Your task to perform on an android device: toggle location history Image 0: 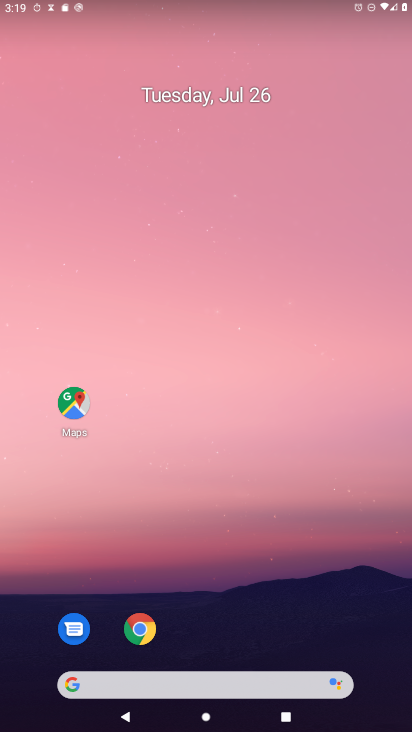
Step 0: drag from (307, 679) to (336, 22)
Your task to perform on an android device: toggle location history Image 1: 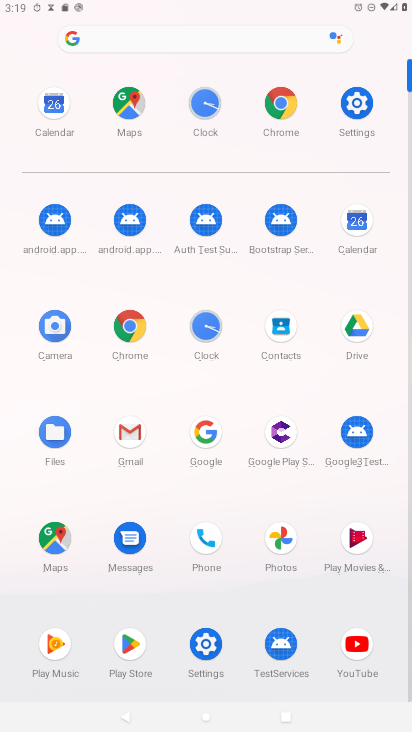
Step 1: click (366, 95)
Your task to perform on an android device: toggle location history Image 2: 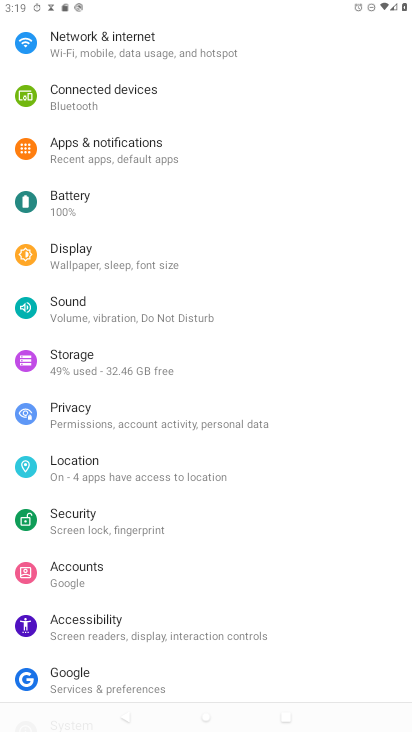
Step 2: click (108, 477)
Your task to perform on an android device: toggle location history Image 3: 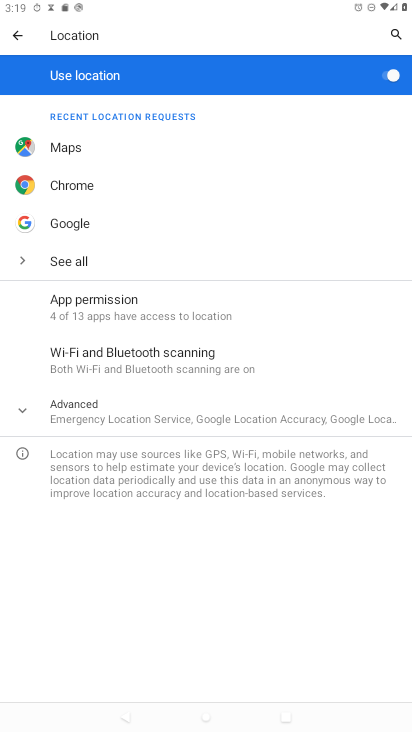
Step 3: click (153, 416)
Your task to perform on an android device: toggle location history Image 4: 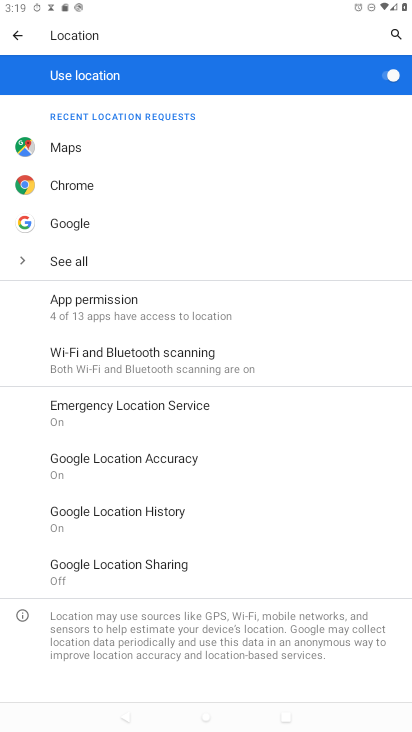
Step 4: click (184, 518)
Your task to perform on an android device: toggle location history Image 5: 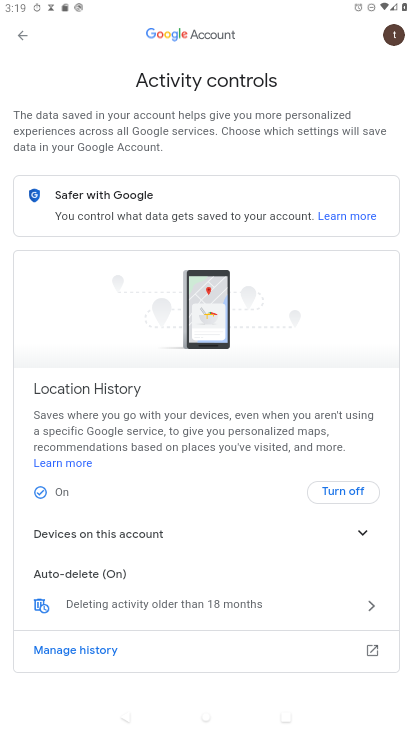
Step 5: click (336, 491)
Your task to perform on an android device: toggle location history Image 6: 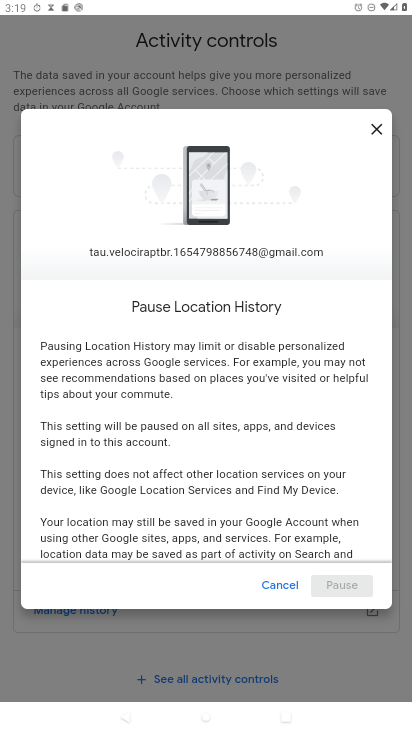
Step 6: drag from (325, 503) to (386, 2)
Your task to perform on an android device: toggle location history Image 7: 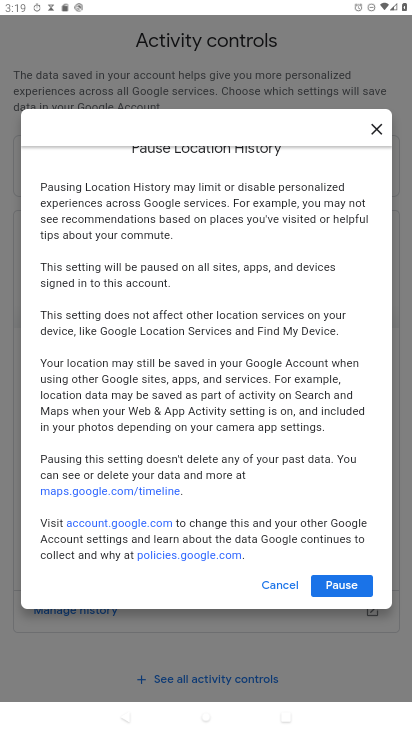
Step 7: click (348, 583)
Your task to perform on an android device: toggle location history Image 8: 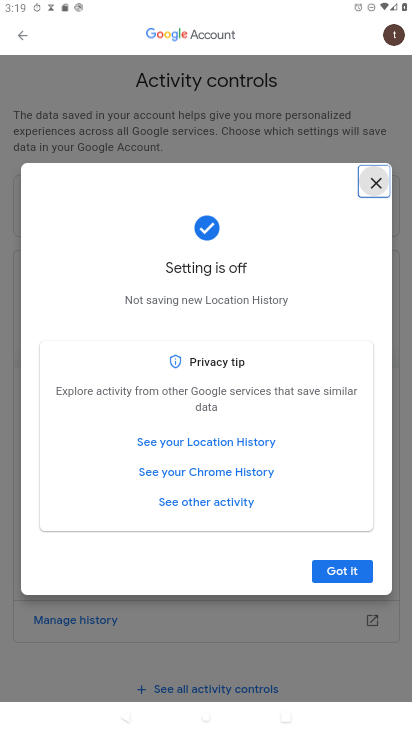
Step 8: click (327, 575)
Your task to perform on an android device: toggle location history Image 9: 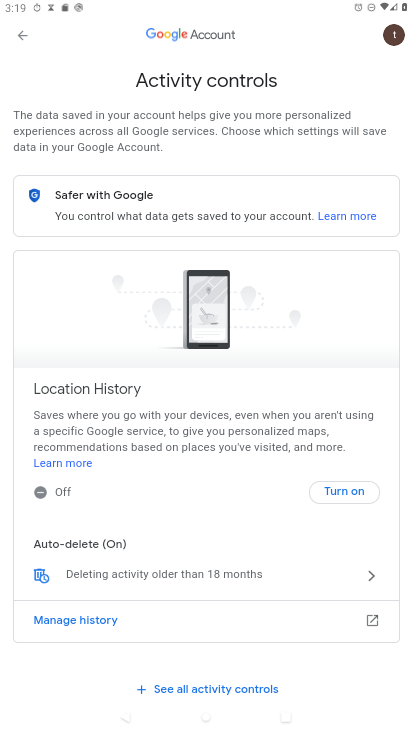
Step 9: task complete